Your task to perform on an android device: Go to Yahoo.com Image 0: 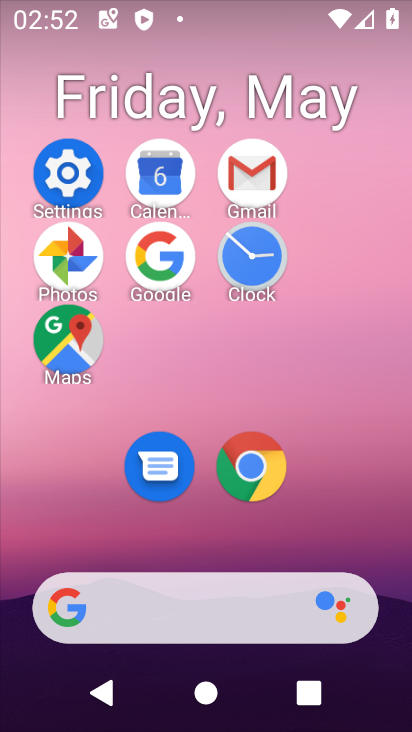
Step 0: click (270, 483)
Your task to perform on an android device: Go to Yahoo.com Image 1: 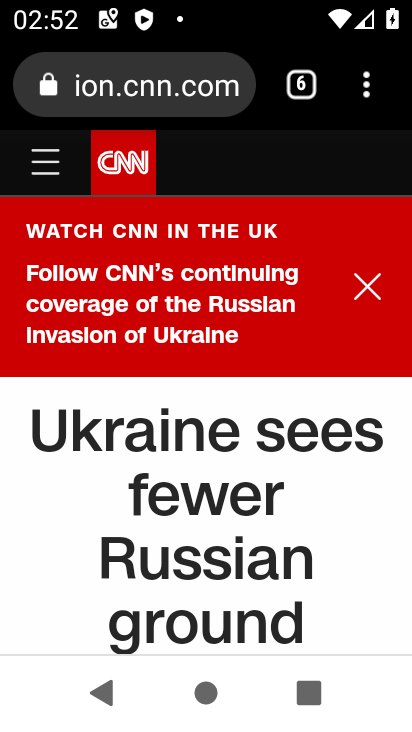
Step 1: click (315, 78)
Your task to perform on an android device: Go to Yahoo.com Image 2: 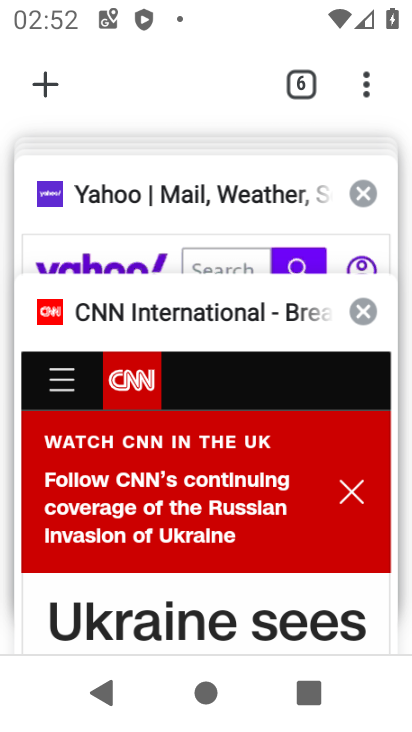
Step 2: click (75, 198)
Your task to perform on an android device: Go to Yahoo.com Image 3: 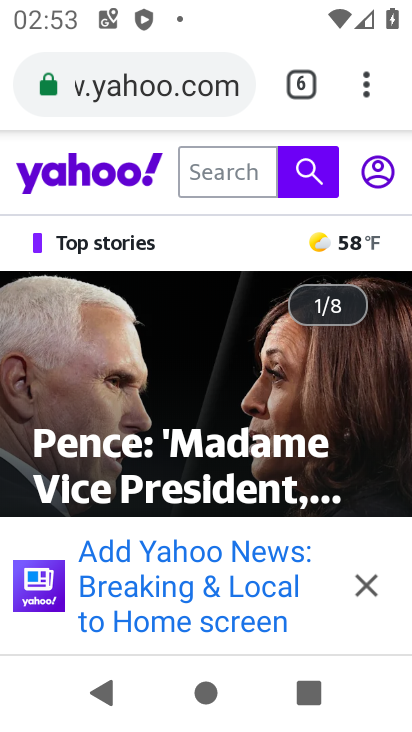
Step 3: task complete